Your task to perform on an android device: open app "Instagram" (install if not already installed), go to login, and select forgot password Image 0: 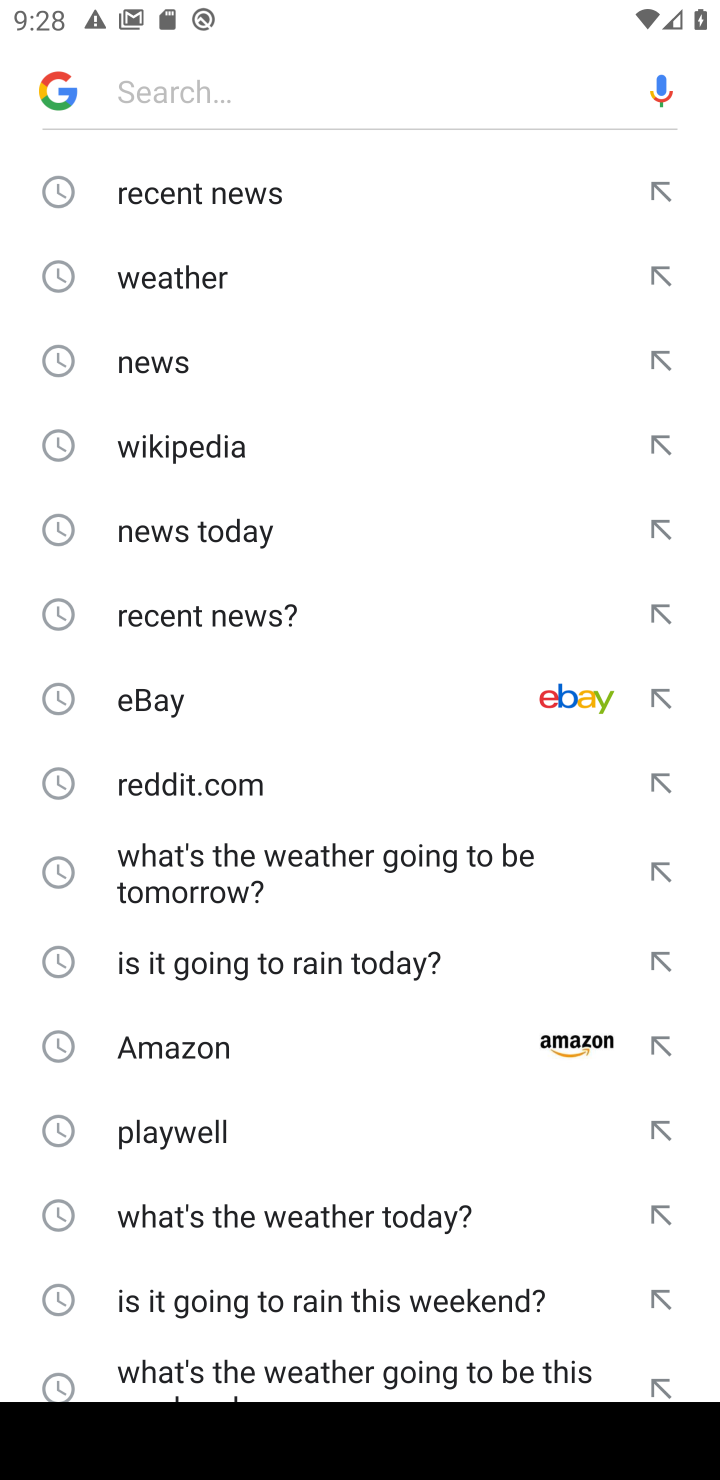
Step 0: press home button
Your task to perform on an android device: open app "Instagram" (install if not already installed), go to login, and select forgot password Image 1: 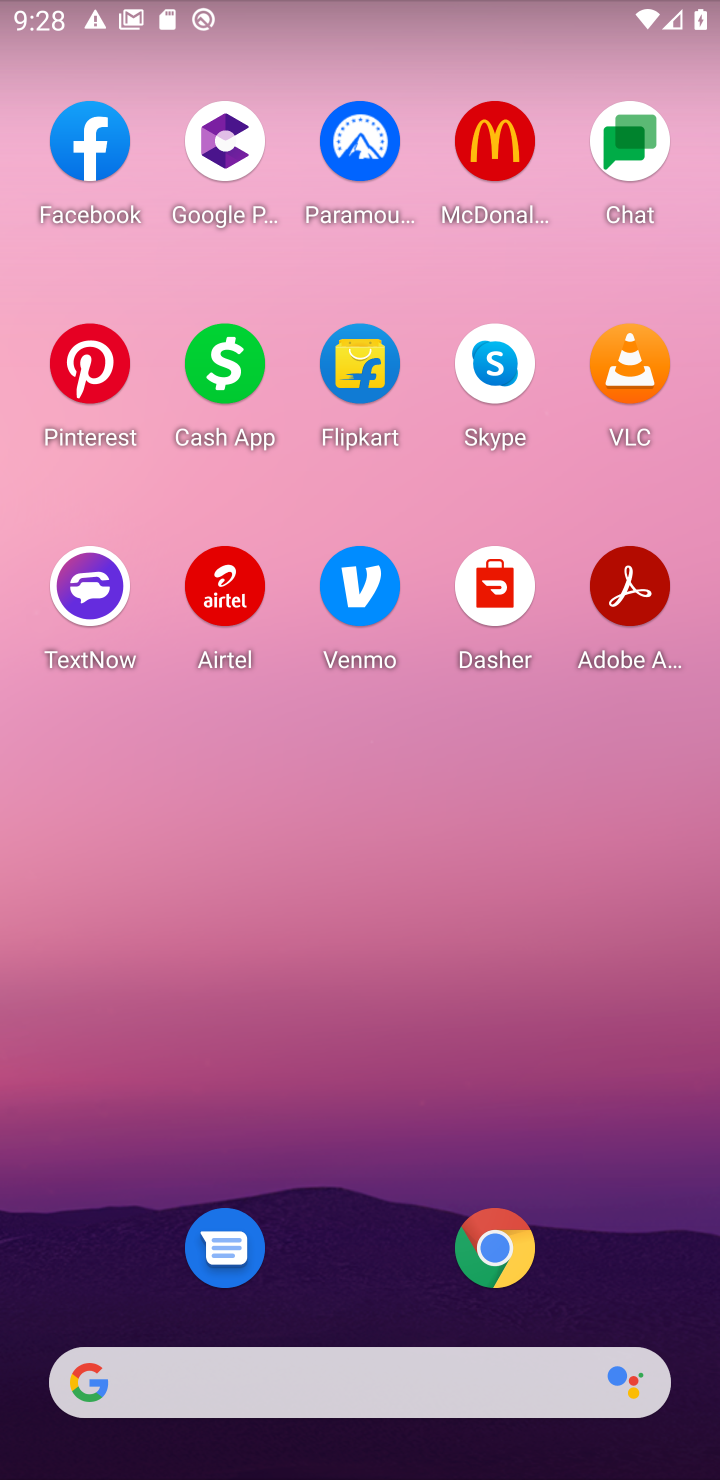
Step 1: drag from (349, 1151) to (340, 148)
Your task to perform on an android device: open app "Instagram" (install if not already installed), go to login, and select forgot password Image 2: 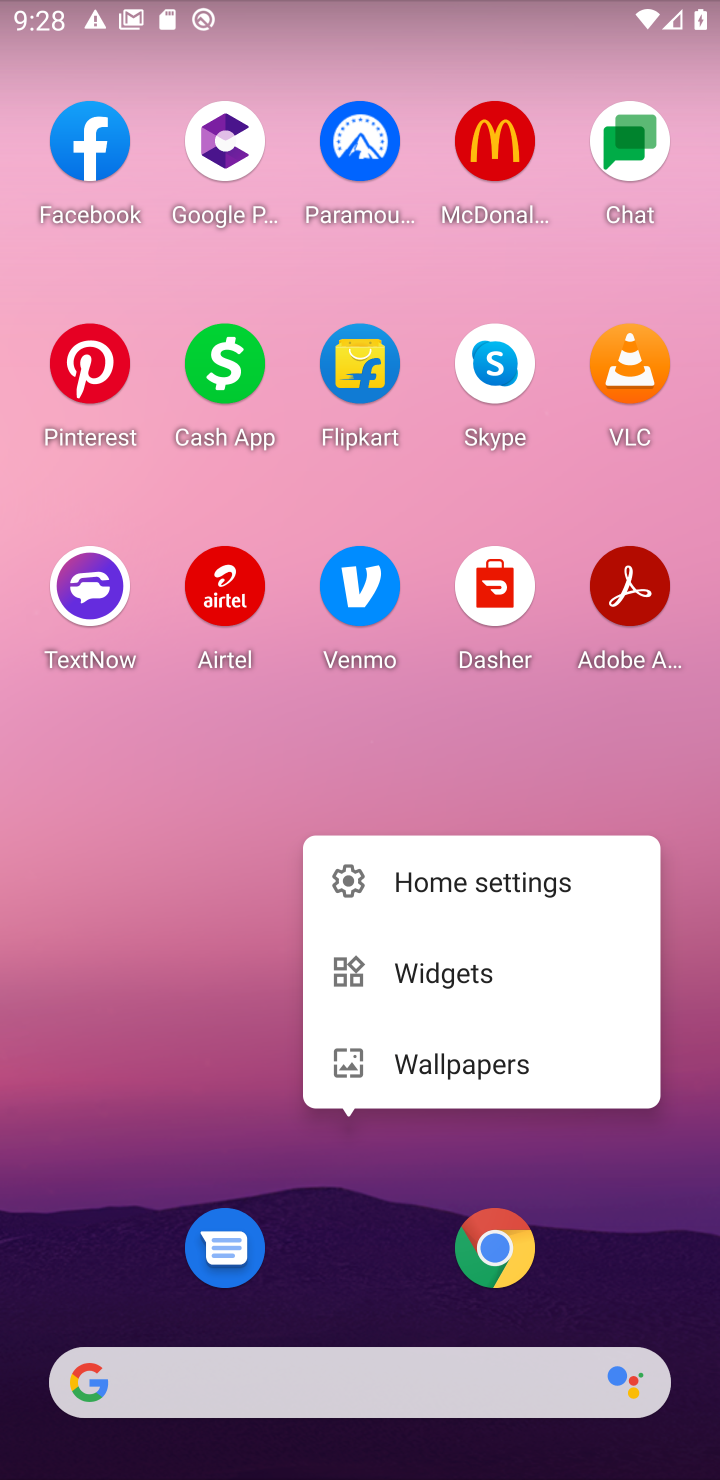
Step 2: click (208, 816)
Your task to perform on an android device: open app "Instagram" (install if not already installed), go to login, and select forgot password Image 3: 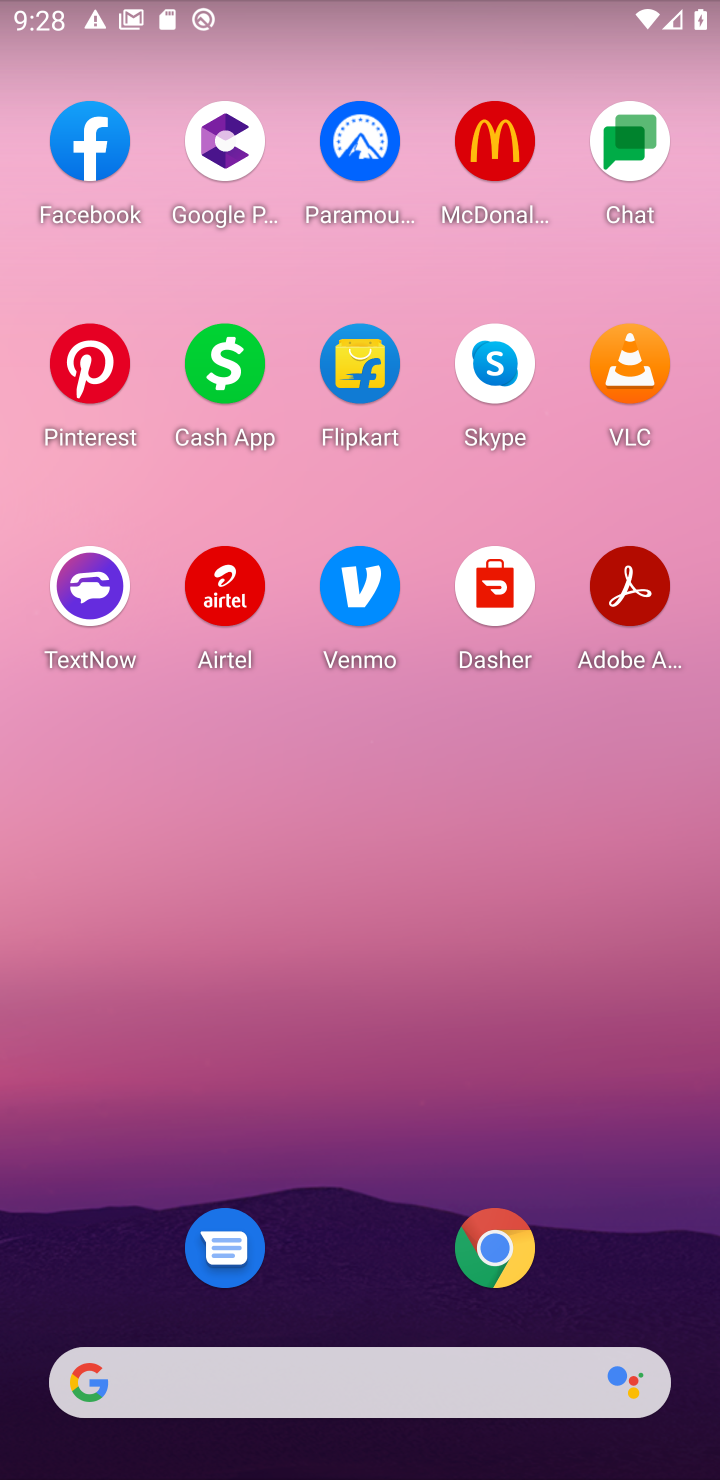
Step 3: drag from (333, 670) to (498, 57)
Your task to perform on an android device: open app "Instagram" (install if not already installed), go to login, and select forgot password Image 4: 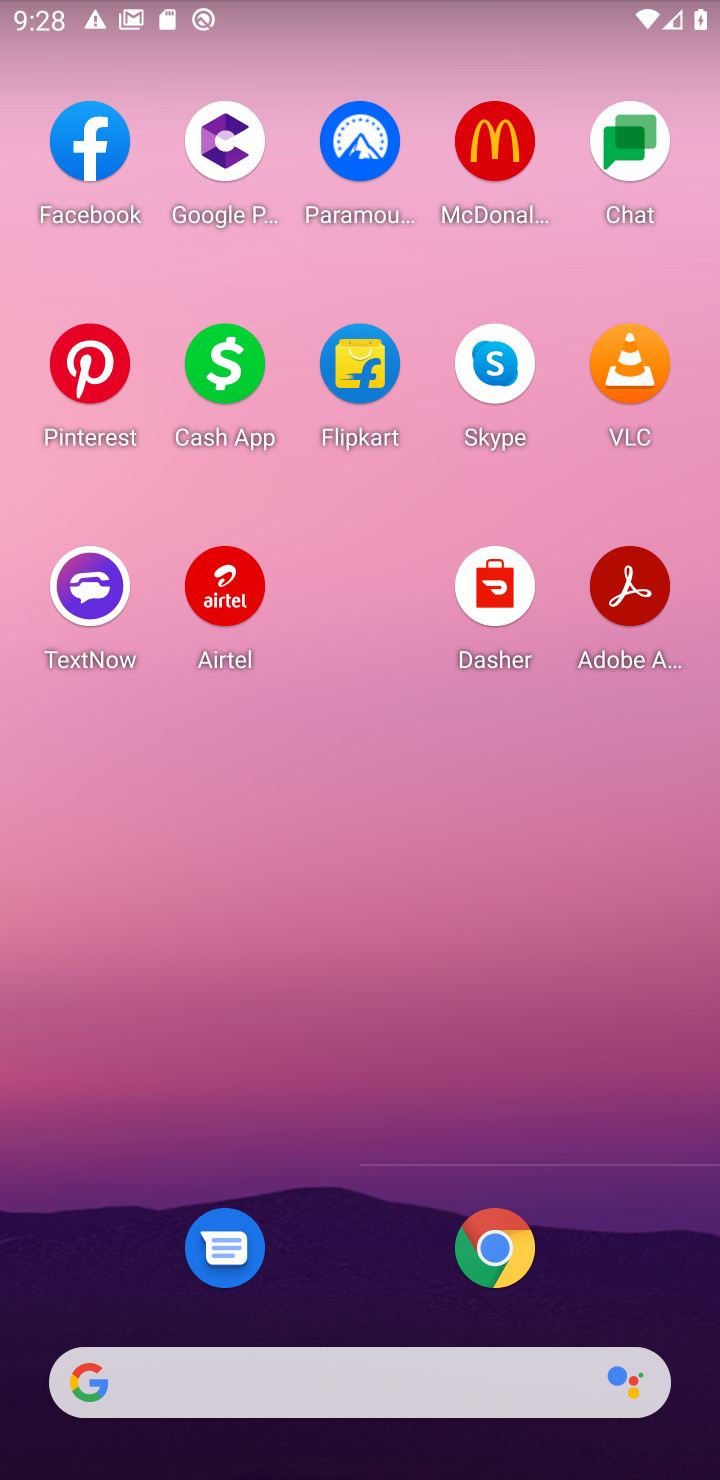
Step 4: click (409, 980)
Your task to perform on an android device: open app "Instagram" (install if not already installed), go to login, and select forgot password Image 5: 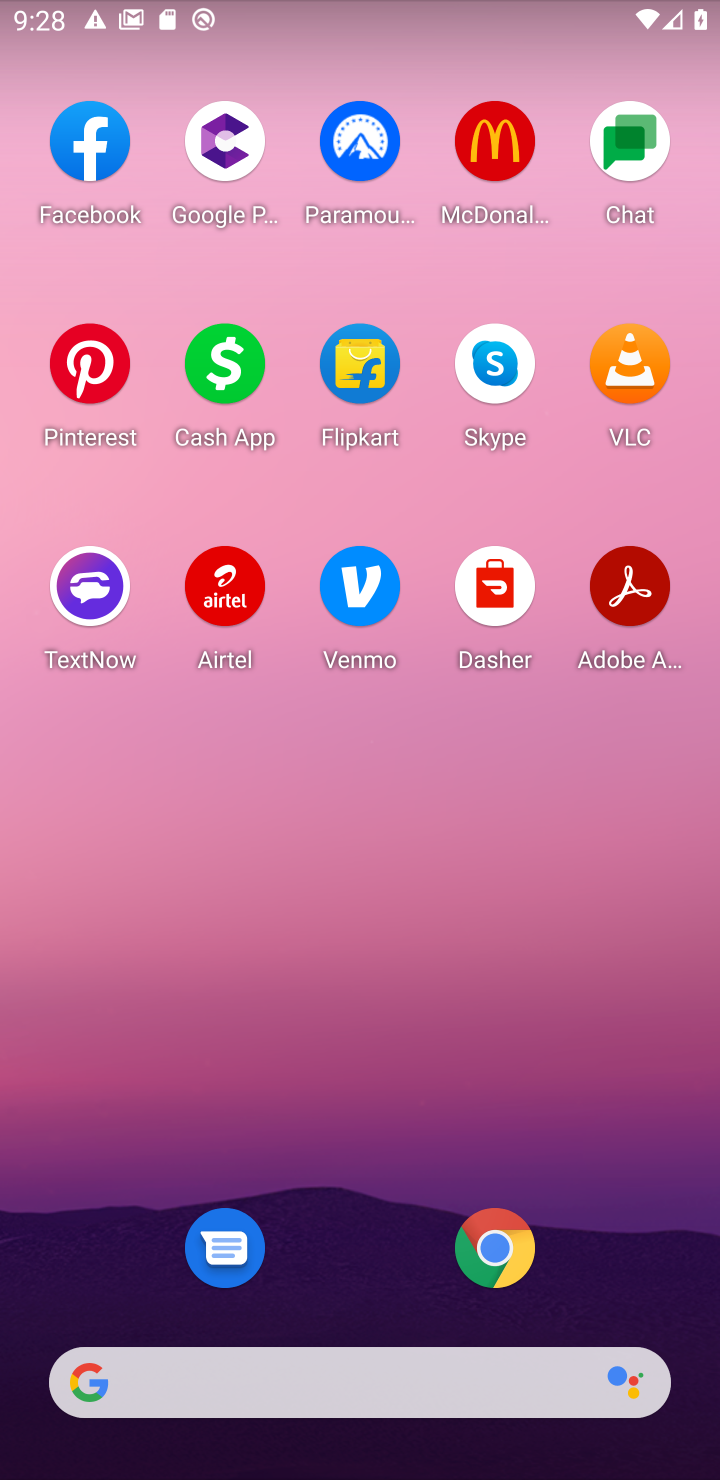
Step 5: drag from (341, 759) to (334, 1)
Your task to perform on an android device: open app "Instagram" (install if not already installed), go to login, and select forgot password Image 6: 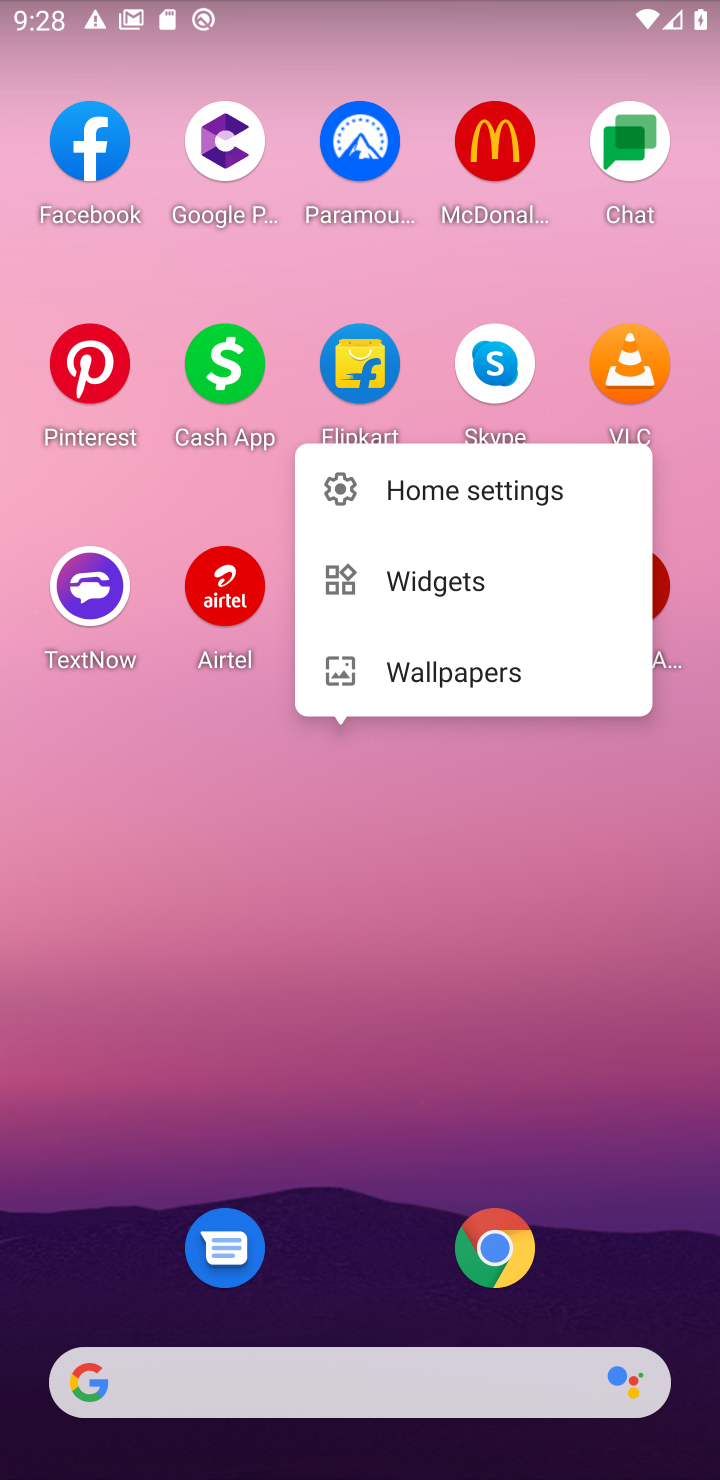
Step 6: click (476, 974)
Your task to perform on an android device: open app "Instagram" (install if not already installed), go to login, and select forgot password Image 7: 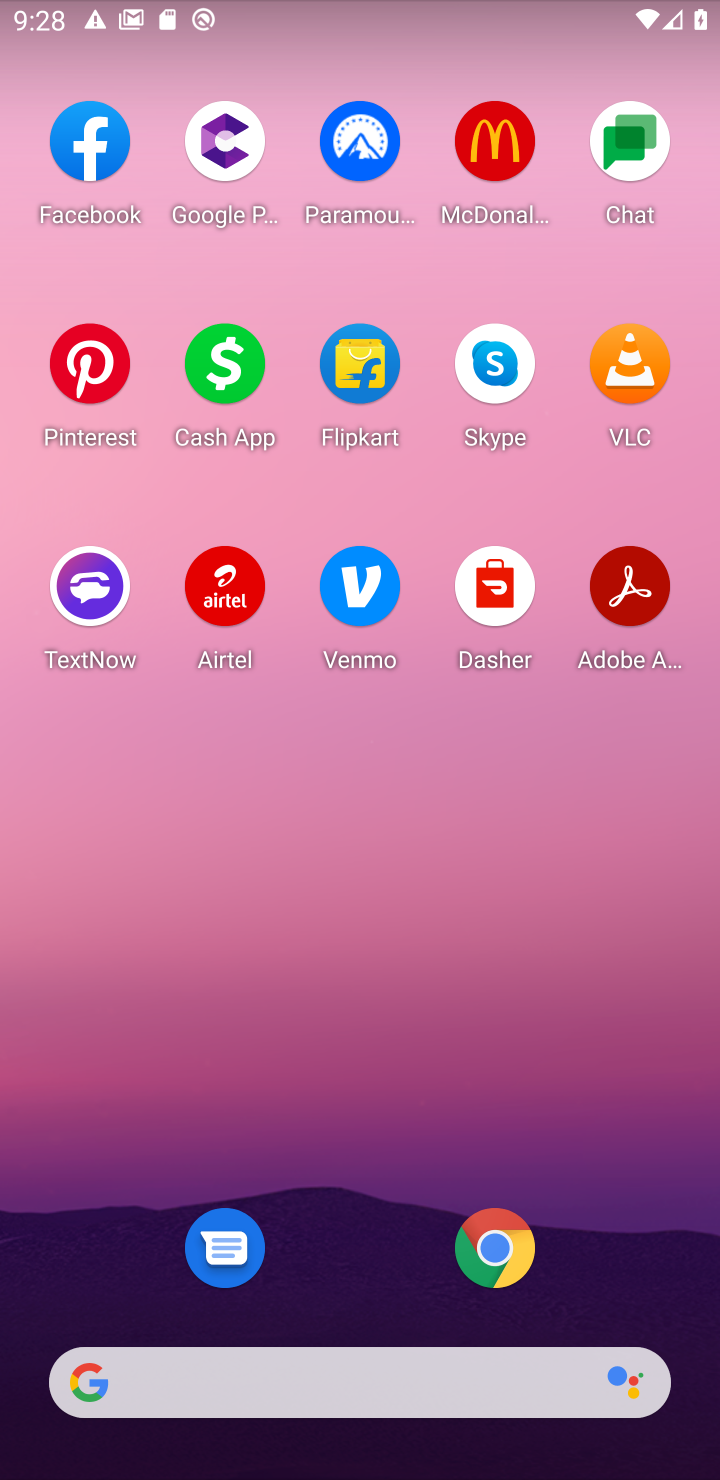
Step 7: drag from (360, 1304) to (360, 143)
Your task to perform on an android device: open app "Instagram" (install if not already installed), go to login, and select forgot password Image 8: 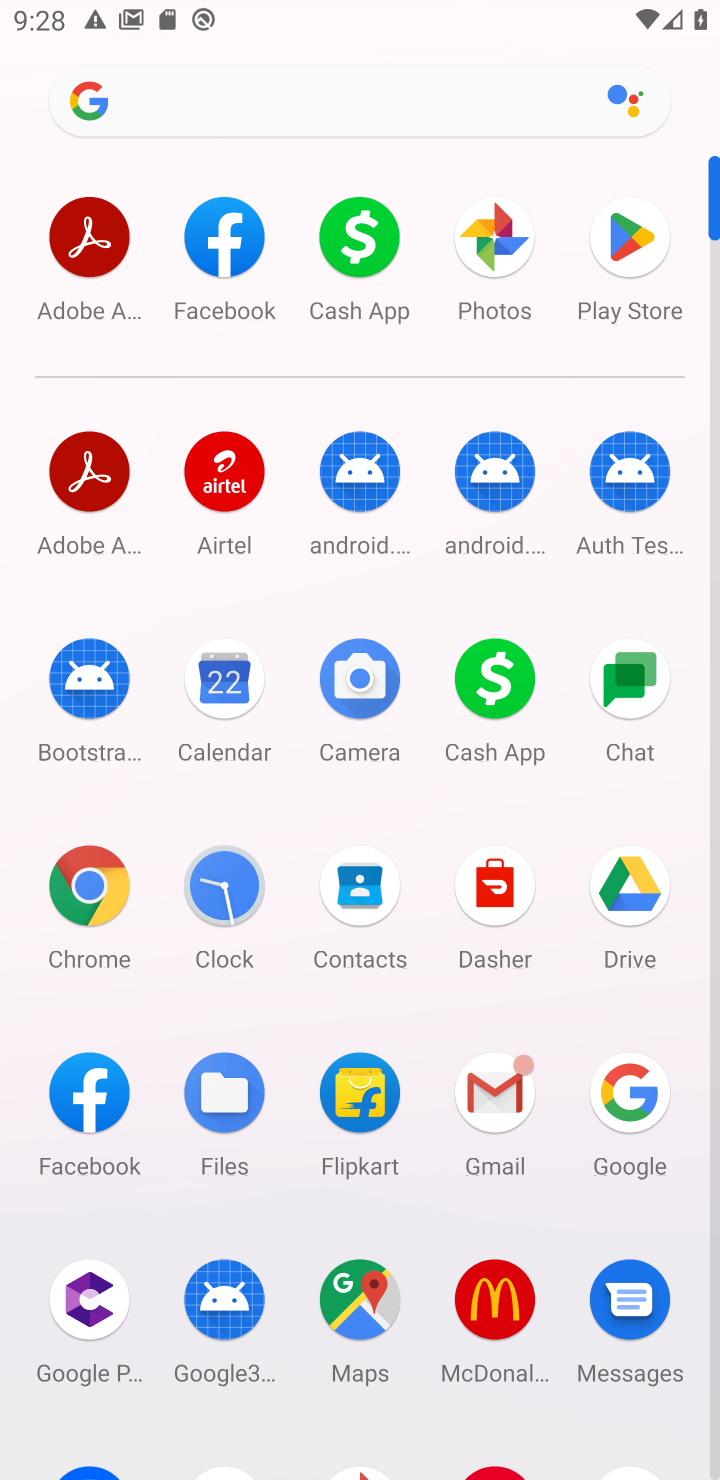
Step 8: click (634, 241)
Your task to perform on an android device: open app "Instagram" (install if not already installed), go to login, and select forgot password Image 9: 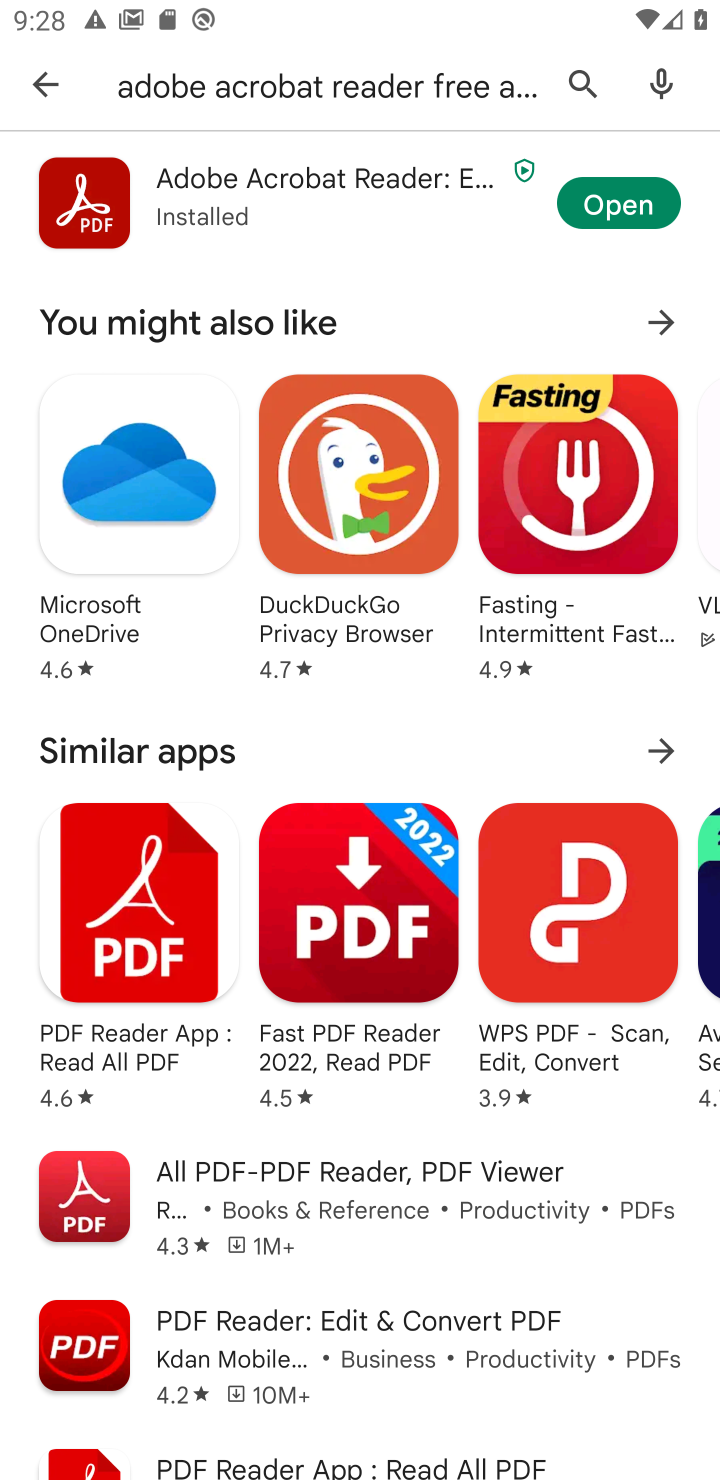
Step 9: click (575, 87)
Your task to perform on an android device: open app "Instagram" (install if not already installed), go to login, and select forgot password Image 10: 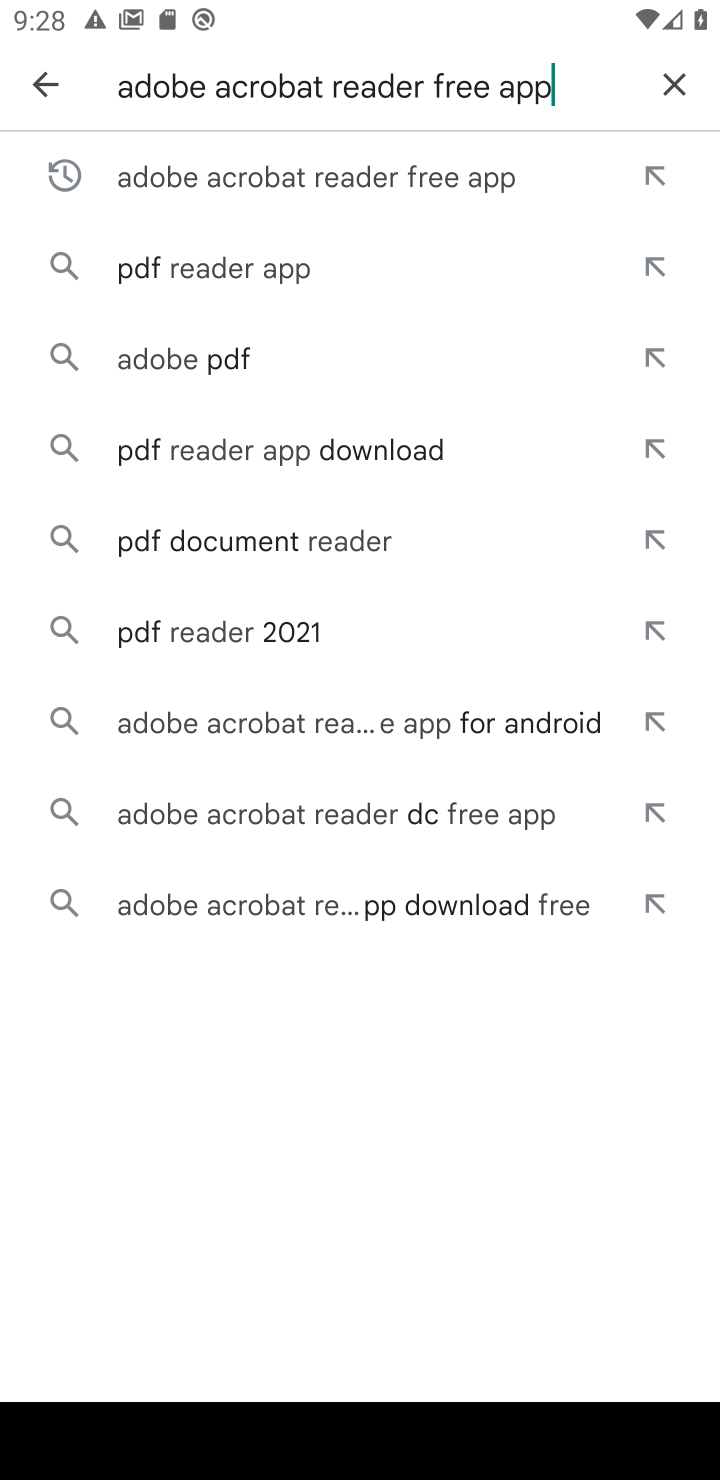
Step 10: click (671, 80)
Your task to perform on an android device: open app "Instagram" (install if not already installed), go to login, and select forgot password Image 11: 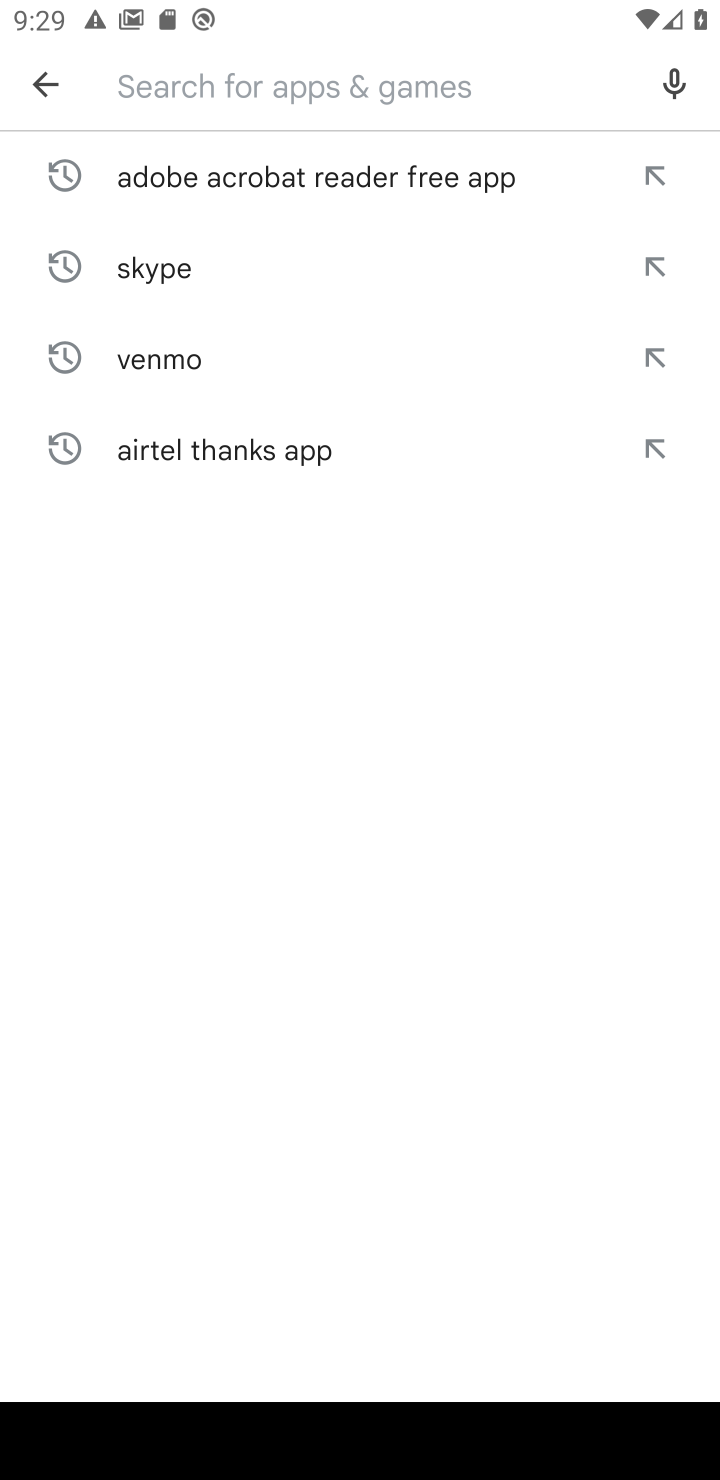
Step 11: type "Instagram"
Your task to perform on an android device: open app "Instagram" (install if not already installed), go to login, and select forgot password Image 12: 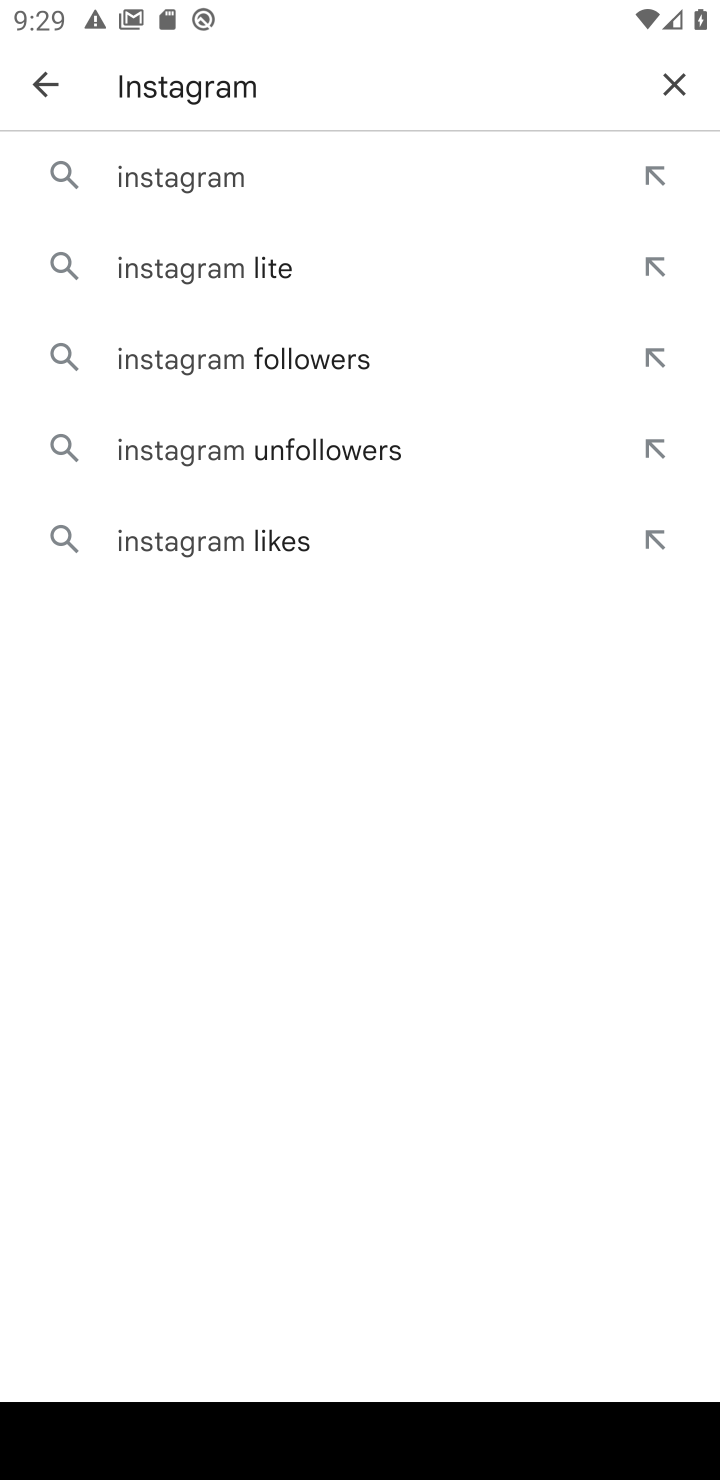
Step 12: click (163, 174)
Your task to perform on an android device: open app "Instagram" (install if not already installed), go to login, and select forgot password Image 13: 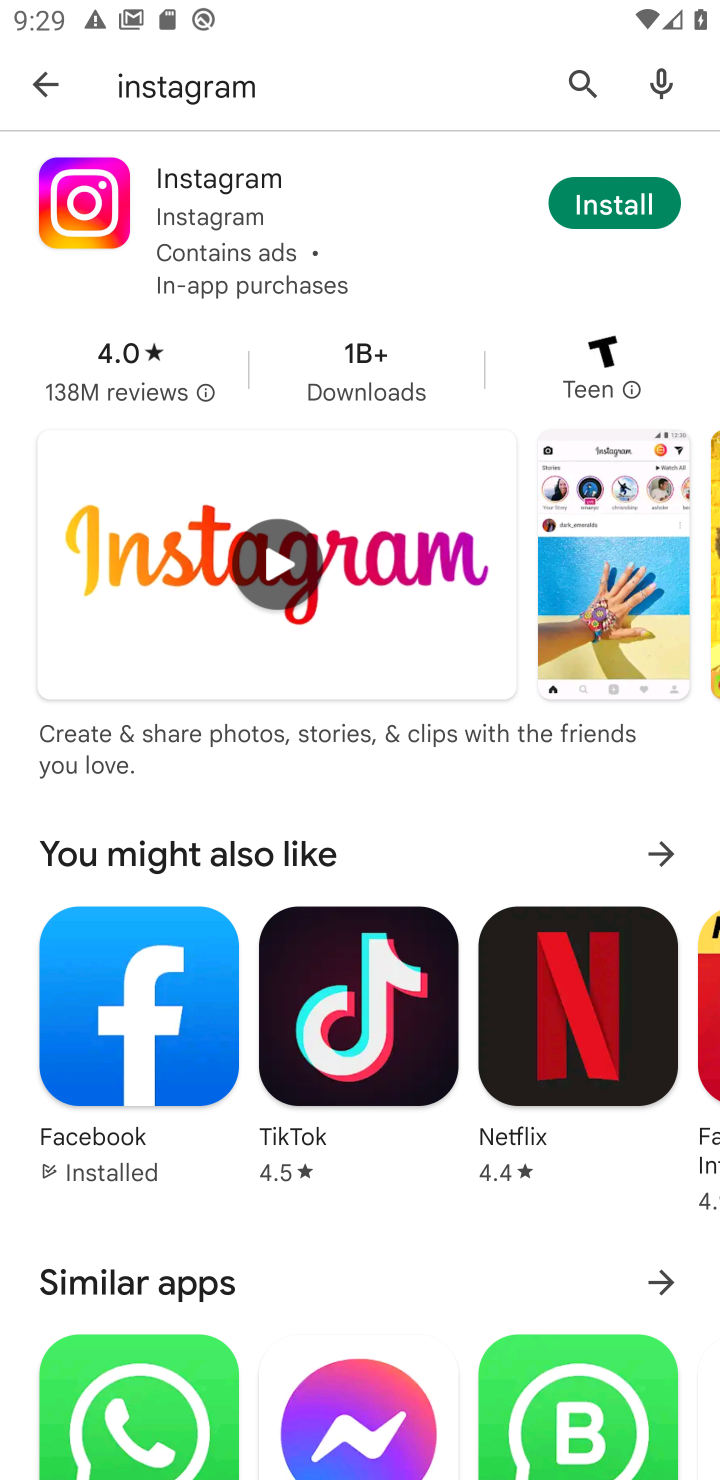
Step 13: click (589, 196)
Your task to perform on an android device: open app "Instagram" (install if not already installed), go to login, and select forgot password Image 14: 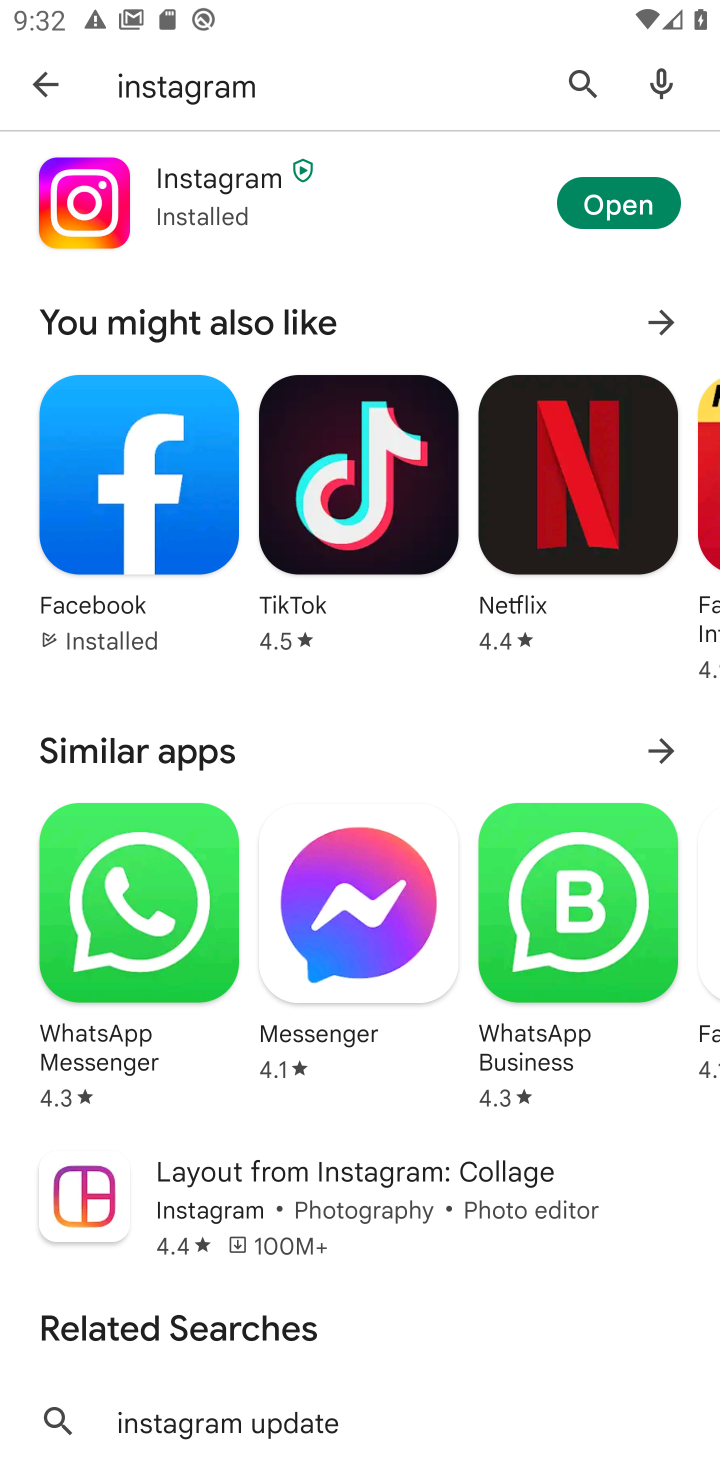
Step 14: click (607, 196)
Your task to perform on an android device: open app "Instagram" (install if not already installed), go to login, and select forgot password Image 15: 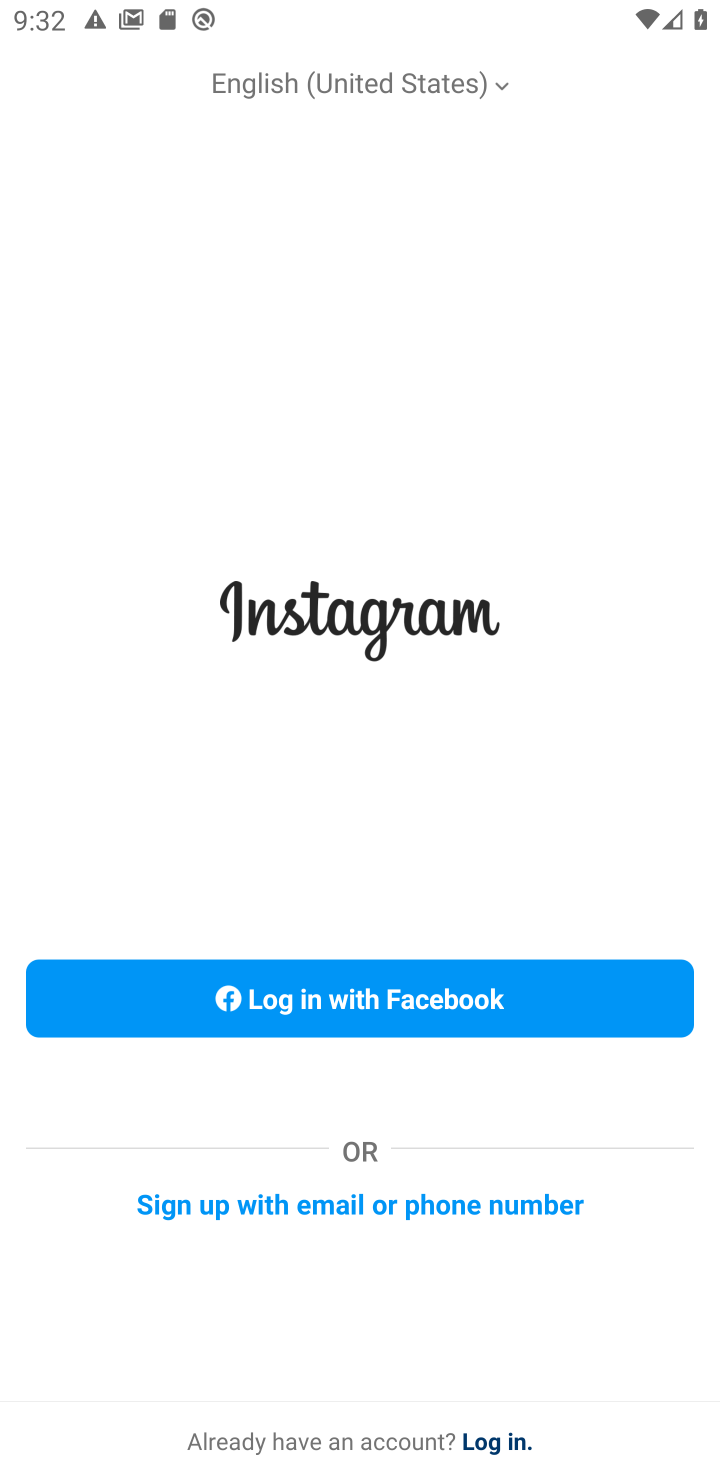
Step 15: click (489, 1428)
Your task to perform on an android device: open app "Instagram" (install if not already installed), go to login, and select forgot password Image 16: 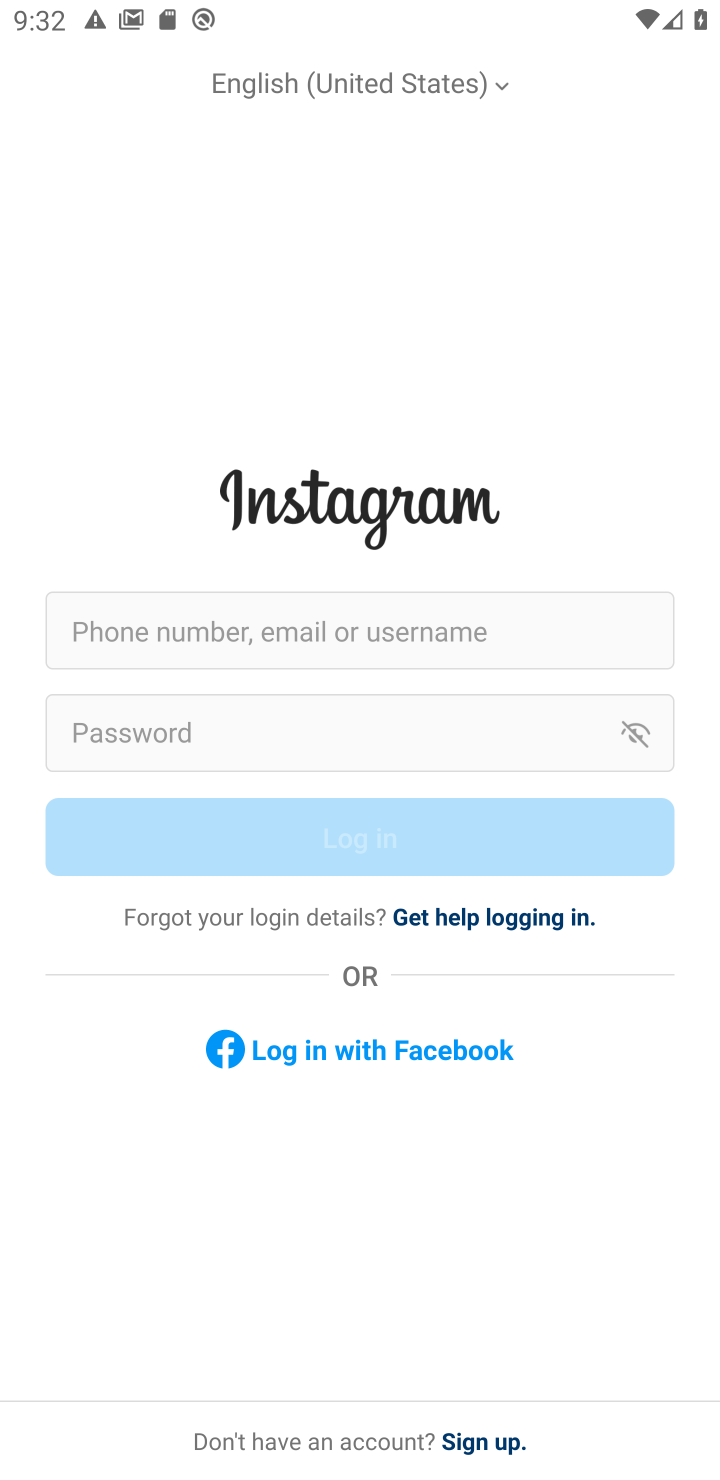
Step 16: click (406, 760)
Your task to perform on an android device: open app "Instagram" (install if not already installed), go to login, and select forgot password Image 17: 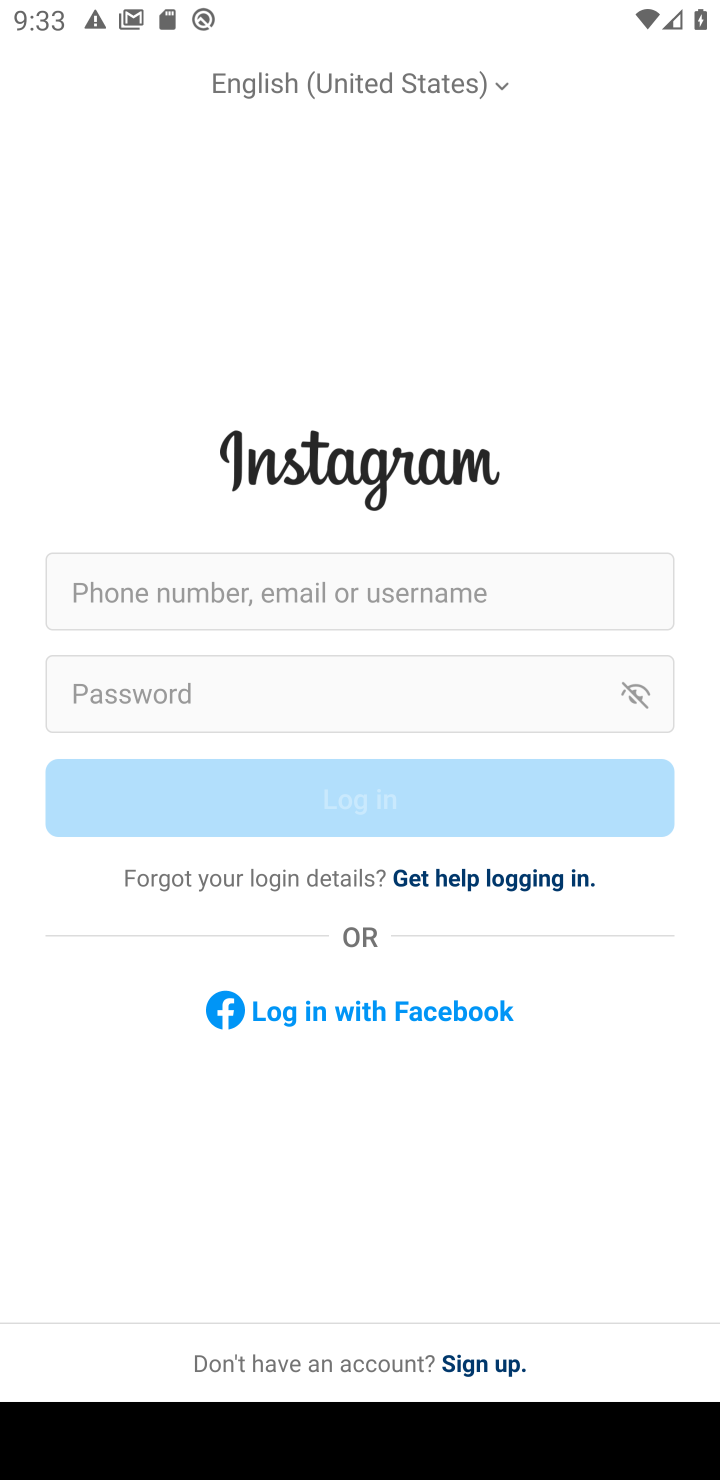
Step 17: click (470, 881)
Your task to perform on an android device: open app "Instagram" (install if not already installed), go to login, and select forgot password Image 18: 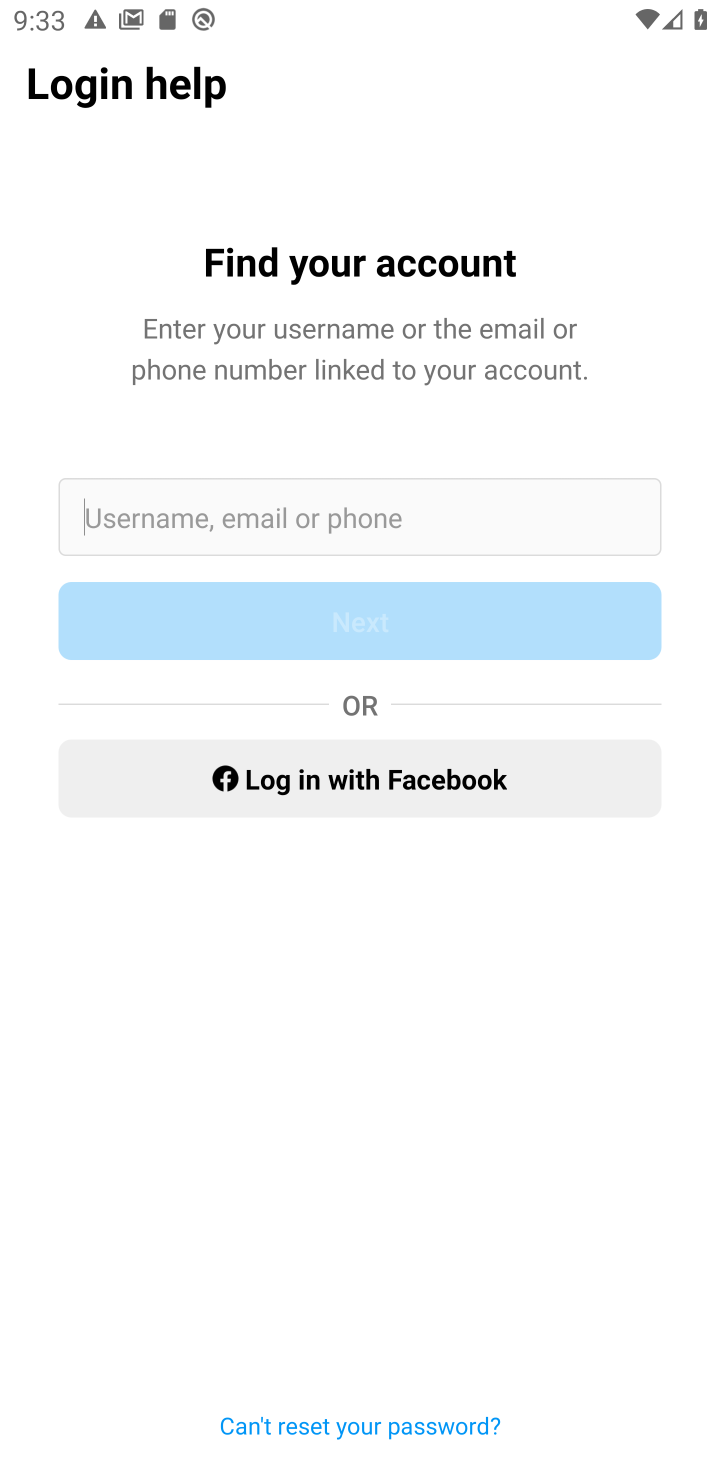
Step 18: task complete